Your task to perform on an android device: turn on airplane mode Image 0: 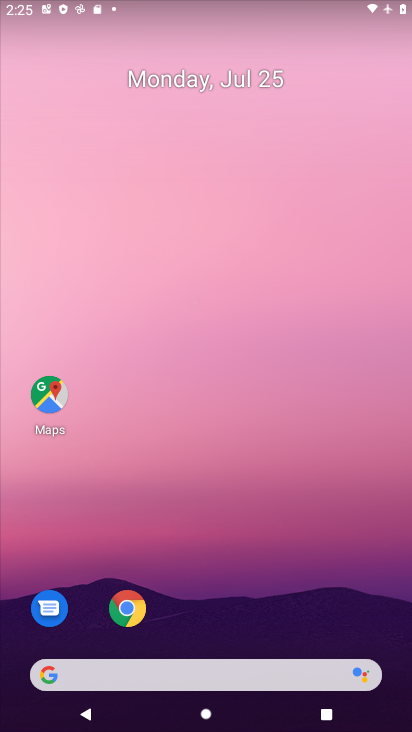
Step 0: drag from (279, 662) to (345, 208)
Your task to perform on an android device: turn on airplane mode Image 1: 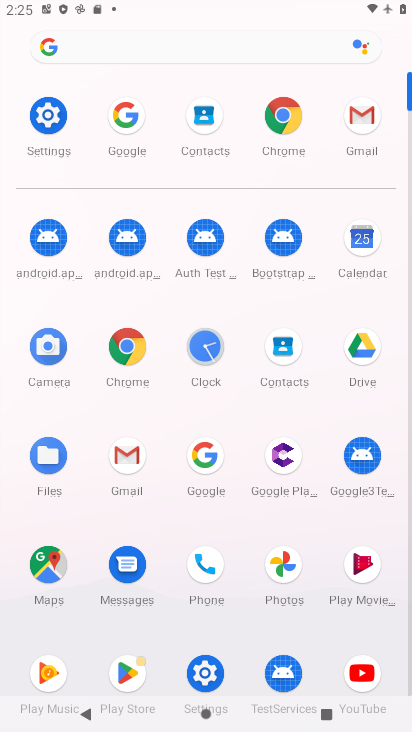
Step 1: click (70, 129)
Your task to perform on an android device: turn on airplane mode Image 2: 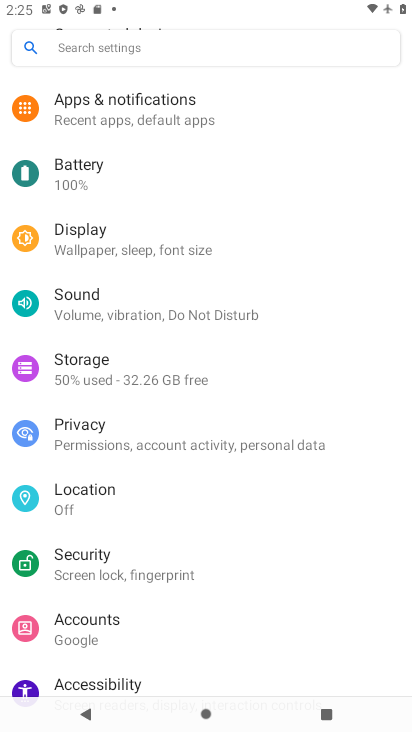
Step 2: drag from (160, 301) to (166, 730)
Your task to perform on an android device: turn on airplane mode Image 3: 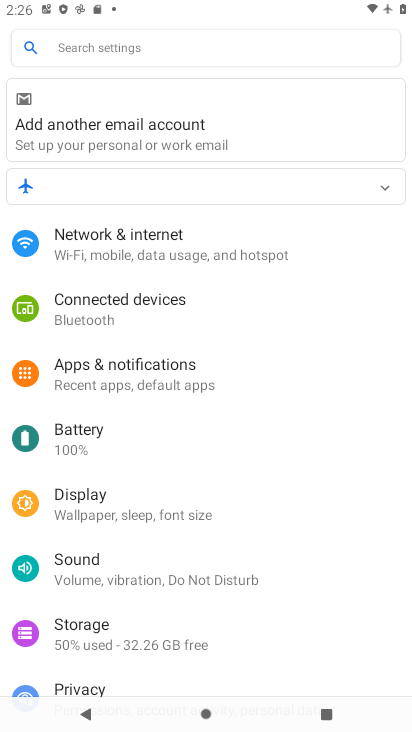
Step 3: click (181, 238)
Your task to perform on an android device: turn on airplane mode Image 4: 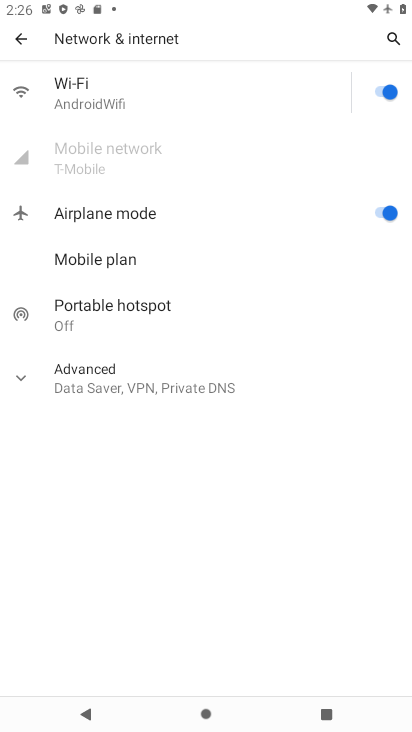
Step 4: task complete